Your task to perform on an android device: How much does the Vizio TV cost? Image 0: 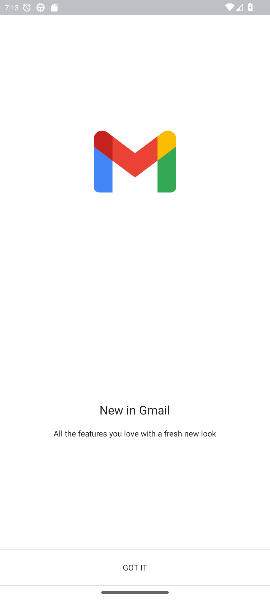
Step 0: press home button
Your task to perform on an android device: How much does the Vizio TV cost? Image 1: 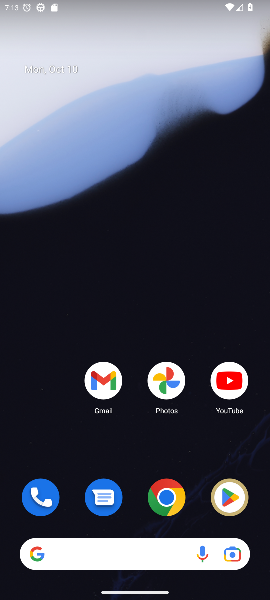
Step 1: drag from (125, 460) to (137, 124)
Your task to perform on an android device: How much does the Vizio TV cost? Image 2: 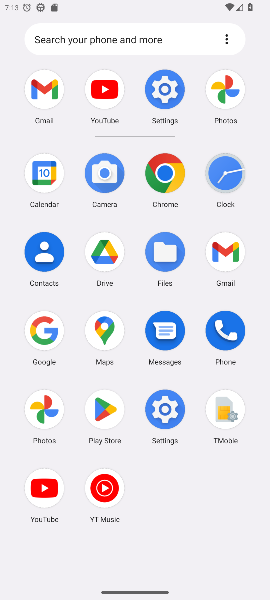
Step 2: click (34, 327)
Your task to perform on an android device: How much does the Vizio TV cost? Image 3: 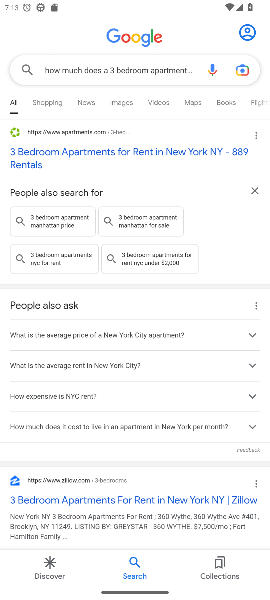
Step 3: click (174, 64)
Your task to perform on an android device: How much does the Vizio TV cost? Image 4: 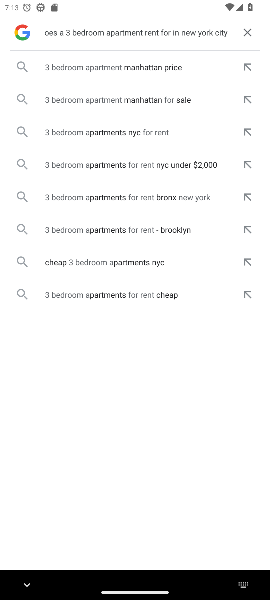
Step 4: click (244, 34)
Your task to perform on an android device: How much does the Vizio TV cost? Image 5: 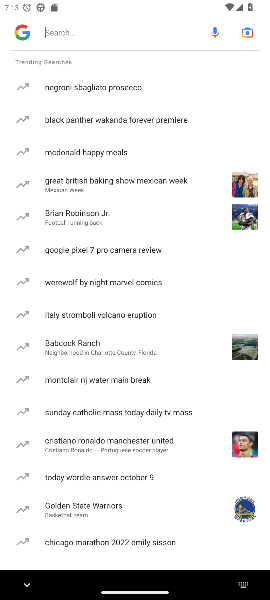
Step 5: click (119, 24)
Your task to perform on an android device: How much does the Vizio TV cost? Image 6: 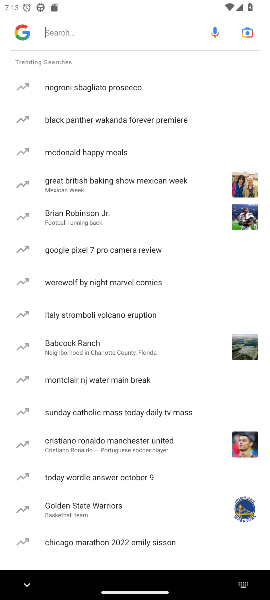
Step 6: type "How much does the Vizio TV cost? "
Your task to perform on an android device: How much does the Vizio TV cost? Image 7: 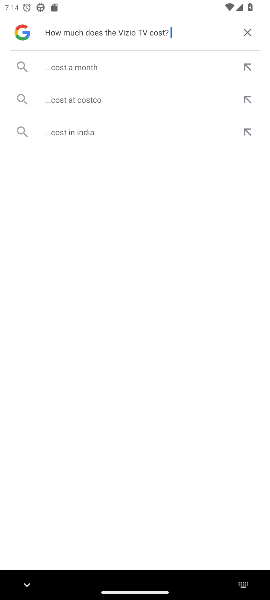
Step 7: click (82, 77)
Your task to perform on an android device: How much does the Vizio TV cost? Image 8: 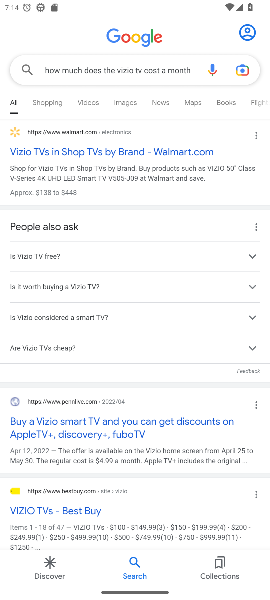
Step 8: click (91, 152)
Your task to perform on an android device: How much does the Vizio TV cost? Image 9: 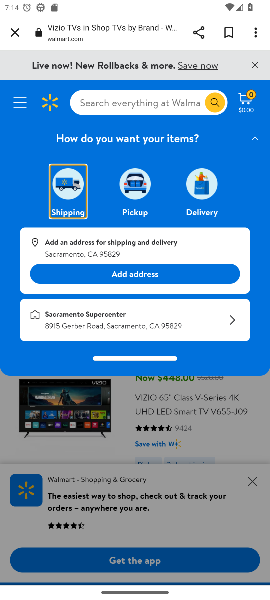
Step 9: click (254, 63)
Your task to perform on an android device: How much does the Vizio TV cost? Image 10: 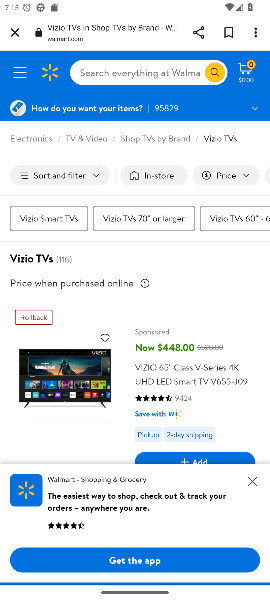
Step 10: click (250, 480)
Your task to perform on an android device: How much does the Vizio TV cost? Image 11: 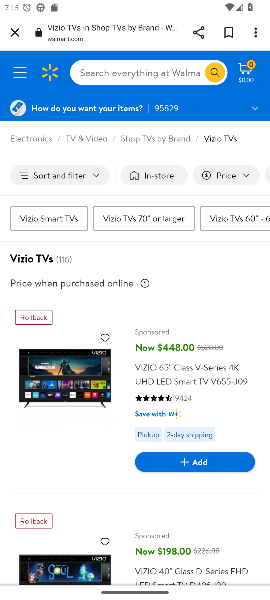
Step 11: task complete